Your task to perform on an android device: refresh tabs in the chrome app Image 0: 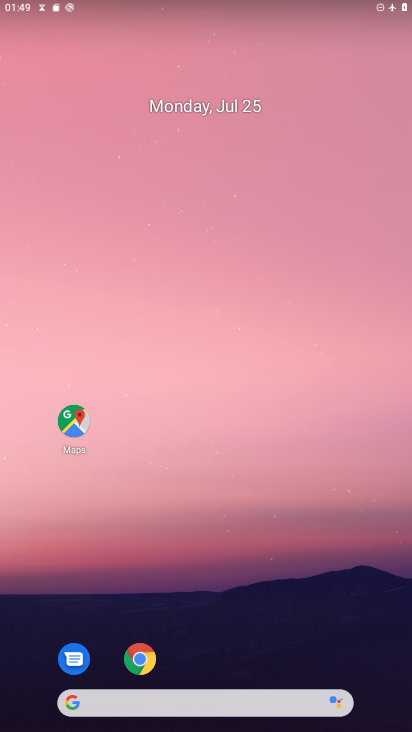
Step 0: drag from (205, 553) to (240, 177)
Your task to perform on an android device: refresh tabs in the chrome app Image 1: 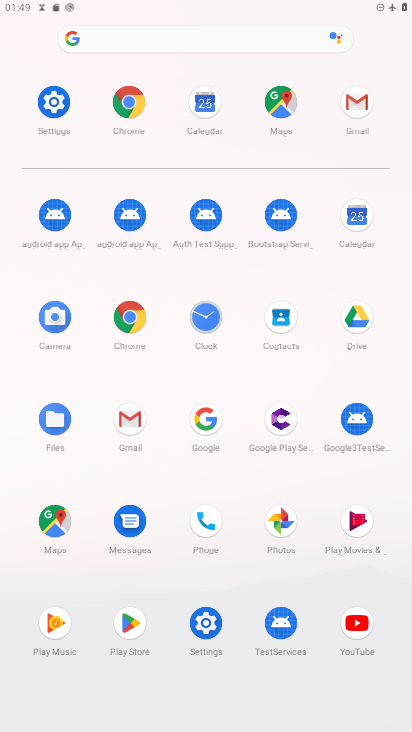
Step 1: click (118, 84)
Your task to perform on an android device: refresh tabs in the chrome app Image 2: 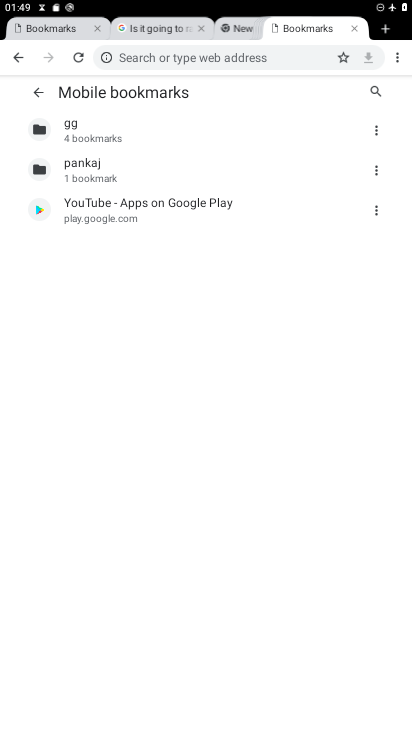
Step 2: click (78, 52)
Your task to perform on an android device: refresh tabs in the chrome app Image 3: 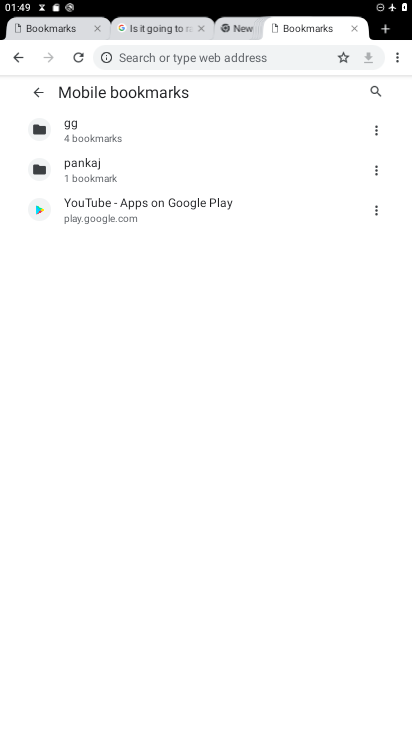
Step 3: click (76, 55)
Your task to perform on an android device: refresh tabs in the chrome app Image 4: 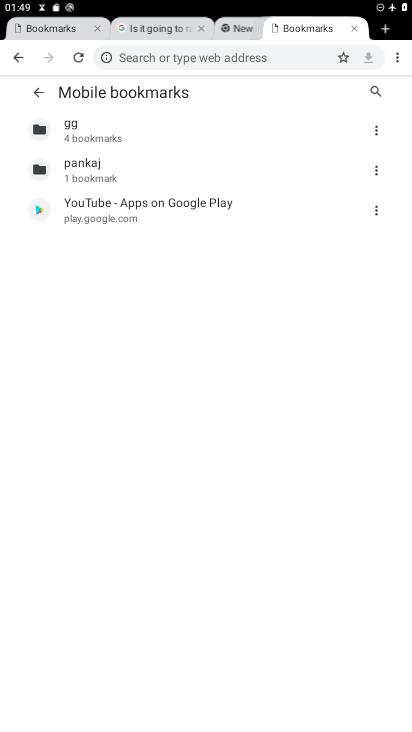
Step 4: click (76, 55)
Your task to perform on an android device: refresh tabs in the chrome app Image 5: 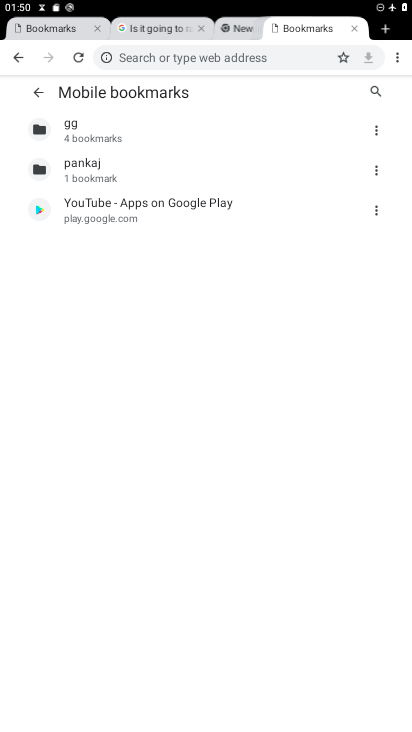
Step 5: task complete